Your task to perform on an android device: Open Android settings Image 0: 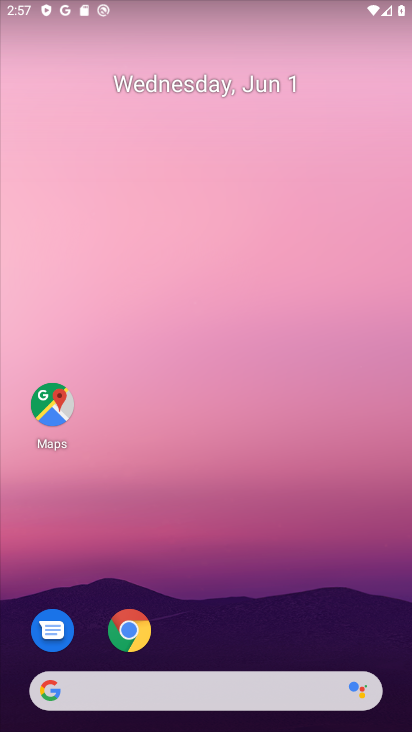
Step 0: drag from (209, 641) to (297, 37)
Your task to perform on an android device: Open Android settings Image 1: 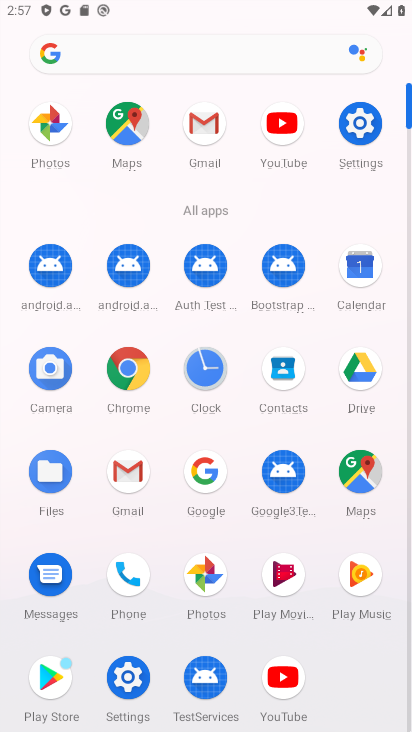
Step 1: click (356, 121)
Your task to perform on an android device: Open Android settings Image 2: 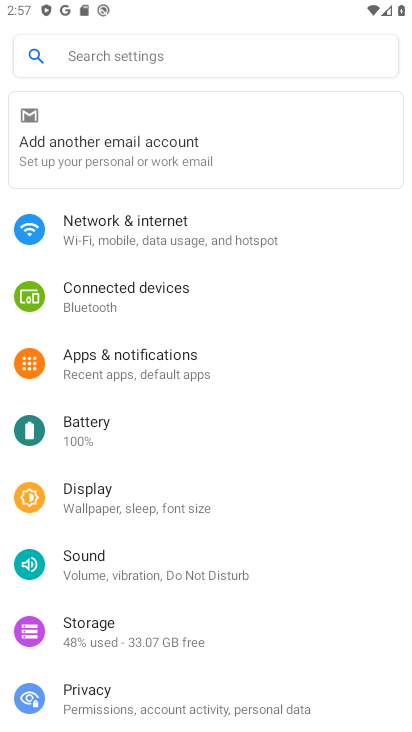
Step 2: drag from (128, 680) to (205, 147)
Your task to perform on an android device: Open Android settings Image 3: 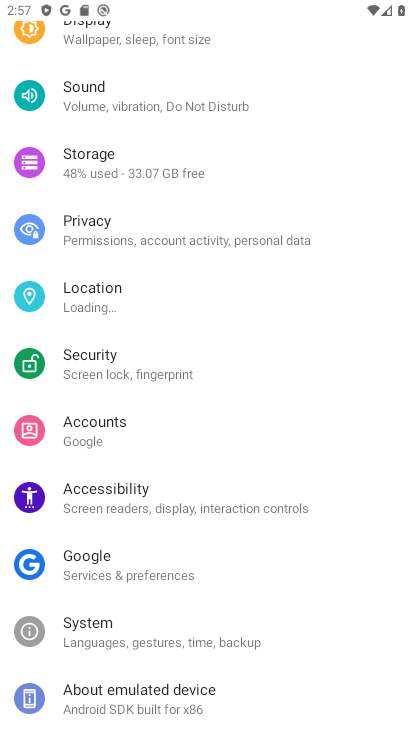
Step 3: drag from (139, 663) to (225, 175)
Your task to perform on an android device: Open Android settings Image 4: 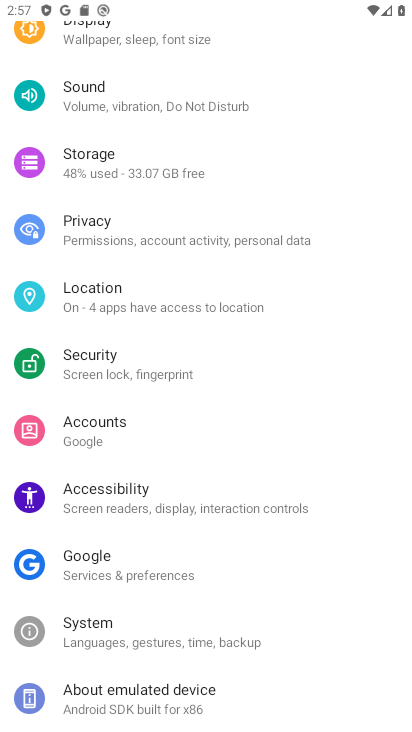
Step 4: click (119, 700)
Your task to perform on an android device: Open Android settings Image 5: 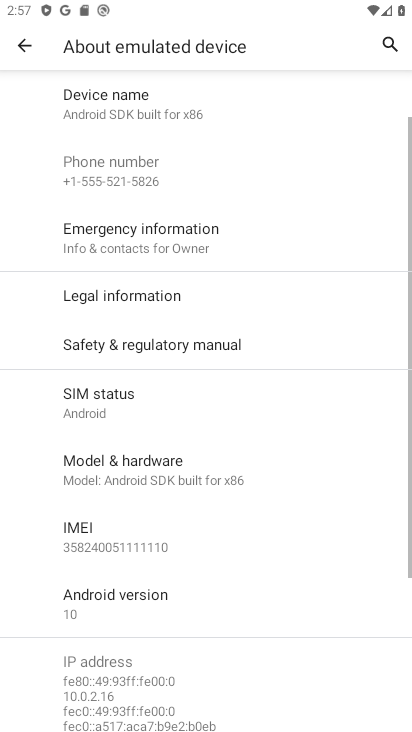
Step 5: task complete